Your task to perform on an android device: What's the weather like in Delhi? Image 0: 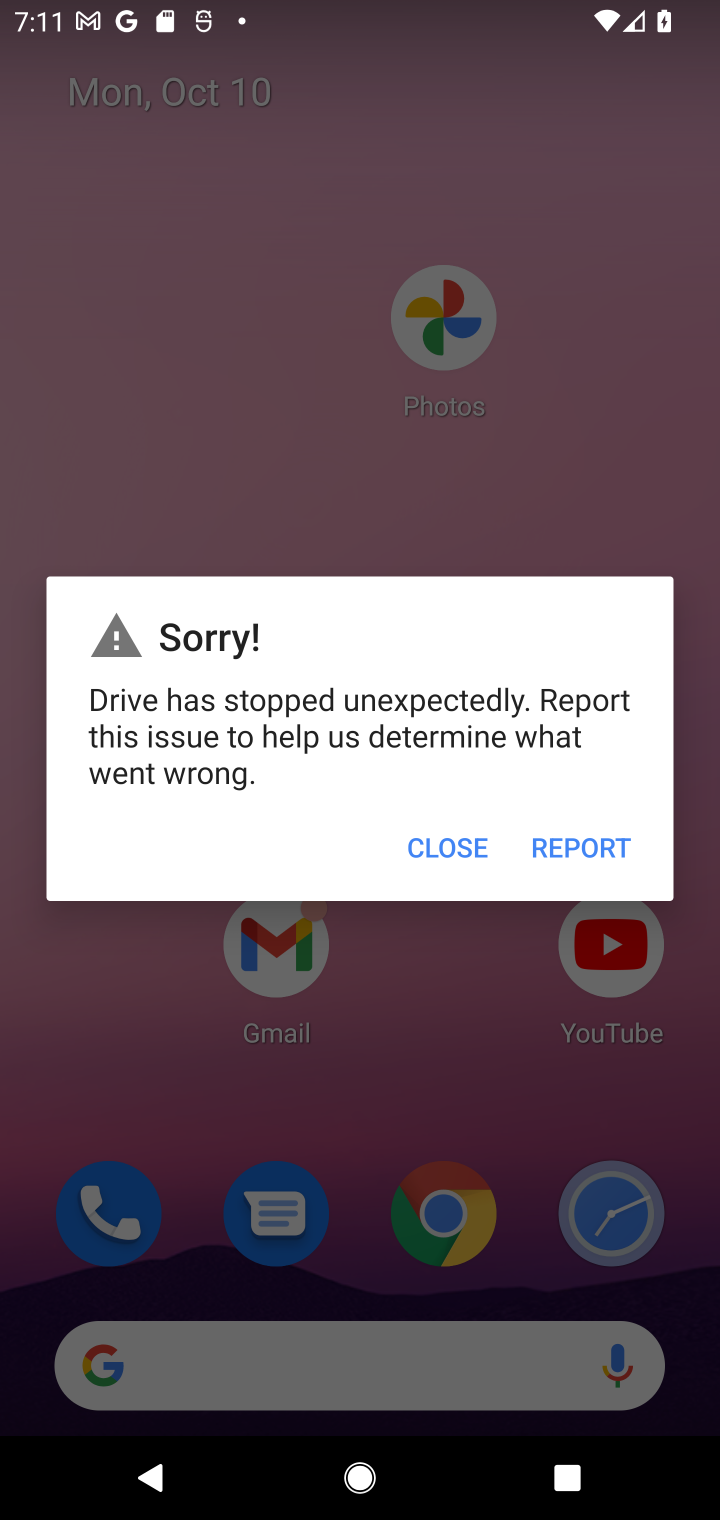
Step 0: click (482, 852)
Your task to perform on an android device: What's the weather like in Delhi? Image 1: 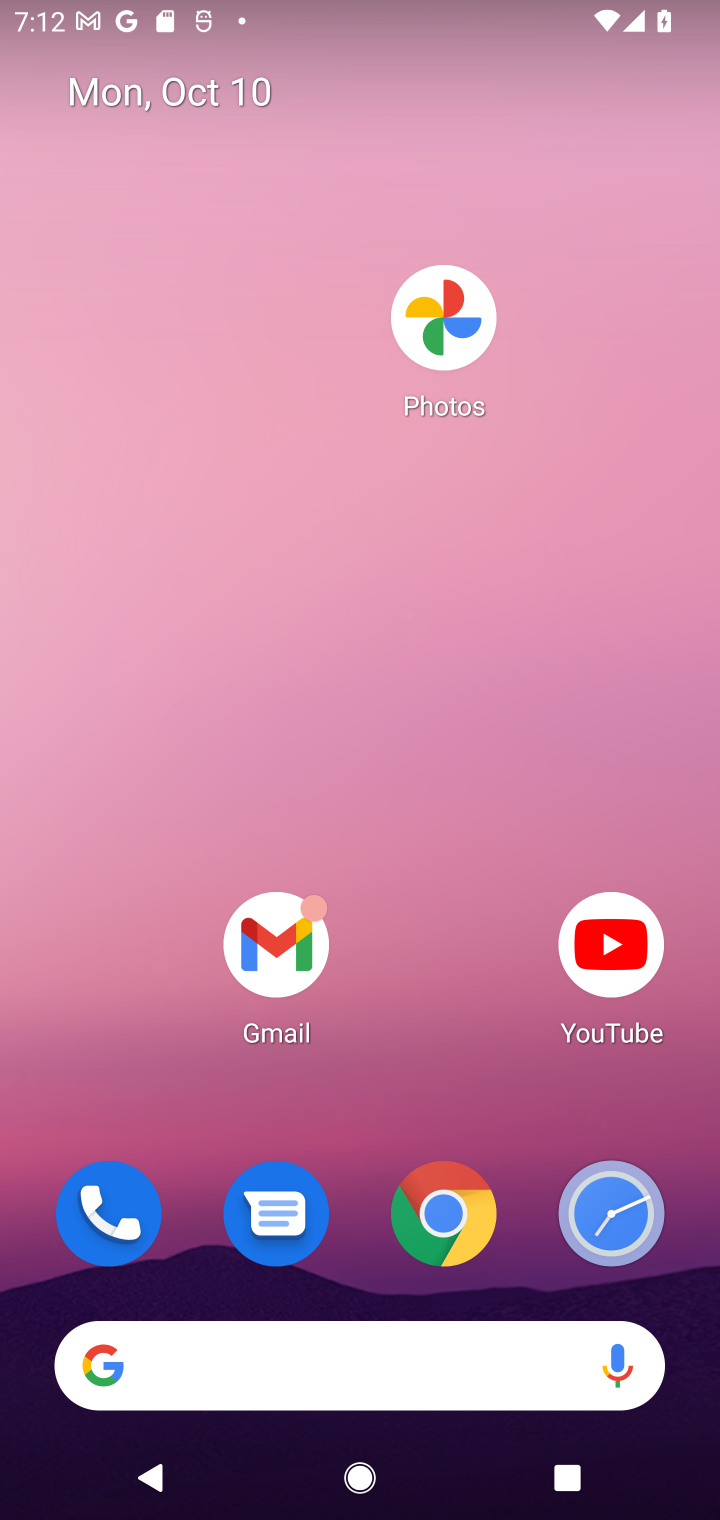
Step 1: click (323, 1343)
Your task to perform on an android device: What's the weather like in Delhi? Image 2: 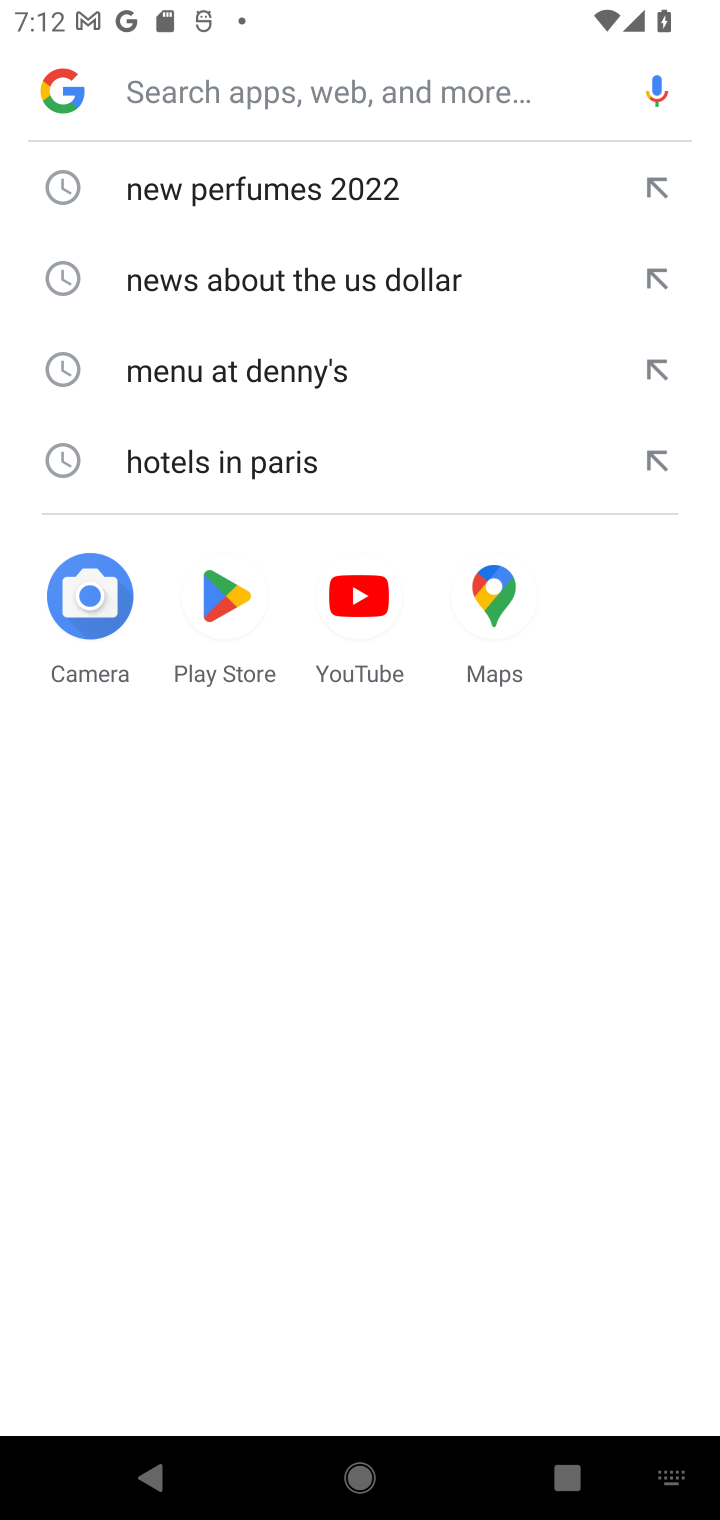
Step 2: type "weather like in Delhi"
Your task to perform on an android device: What's the weather like in Delhi? Image 3: 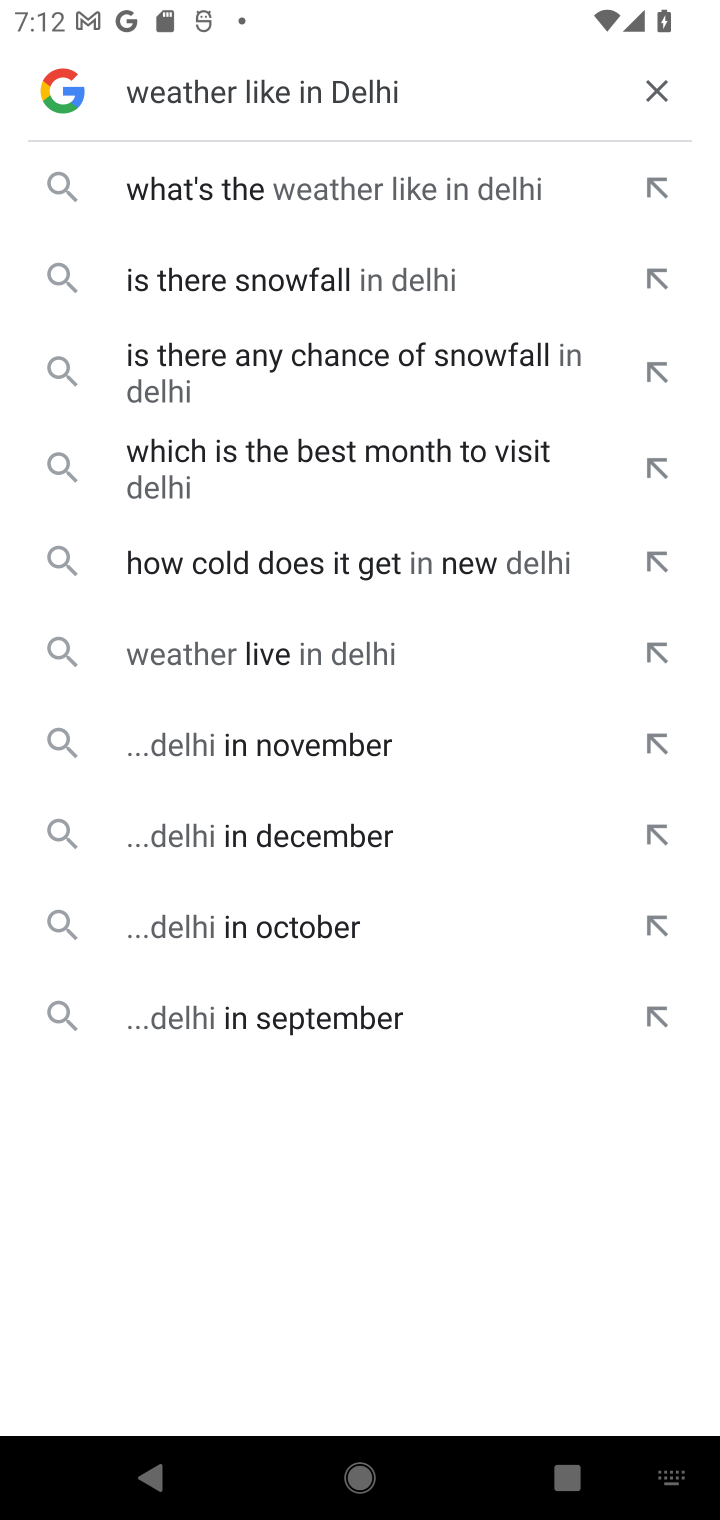
Step 3: click (279, 188)
Your task to perform on an android device: What's the weather like in Delhi? Image 4: 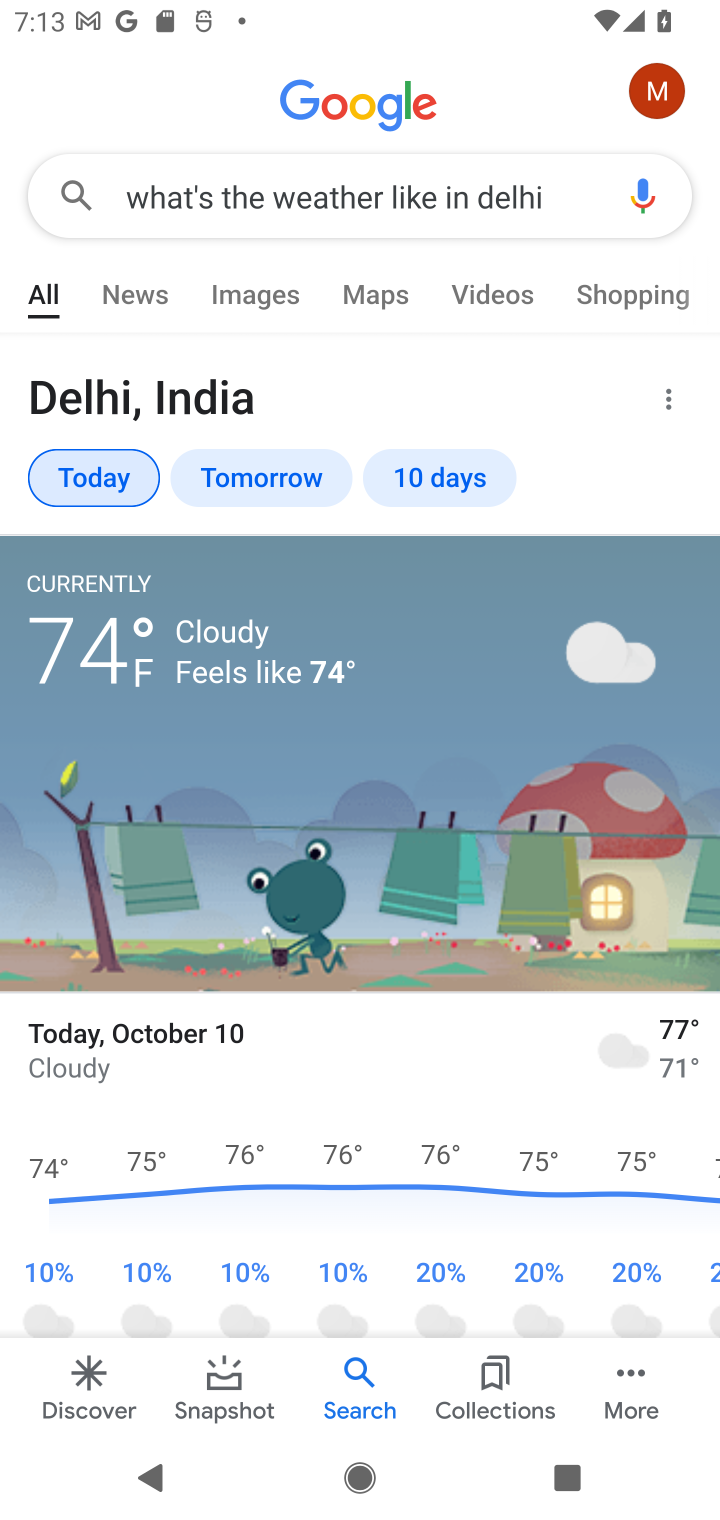
Step 4: task complete